Your task to perform on an android device: turn smart compose on in the gmail app Image 0: 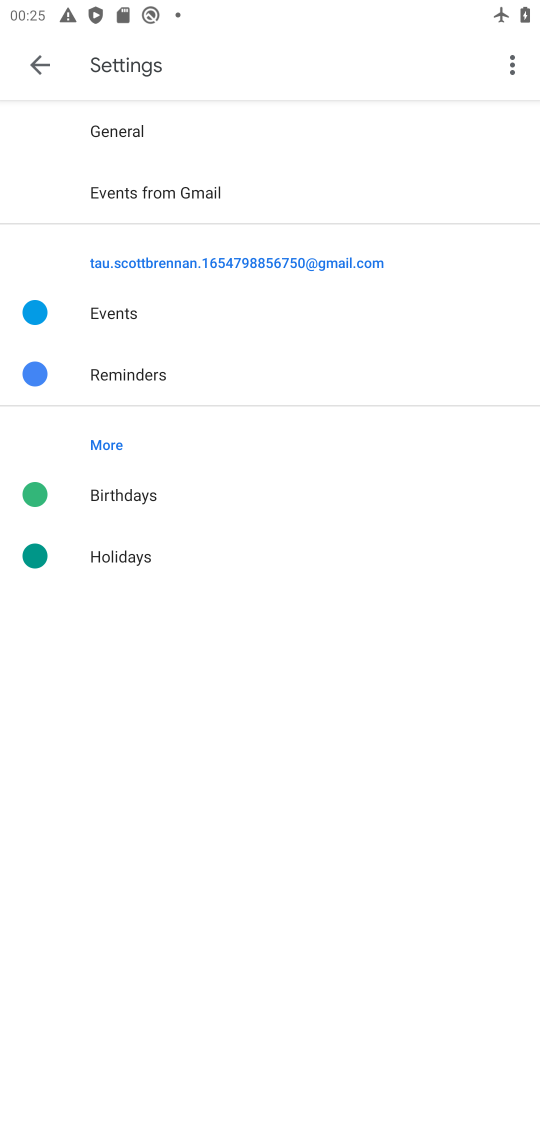
Step 0: press home button
Your task to perform on an android device: turn smart compose on in the gmail app Image 1: 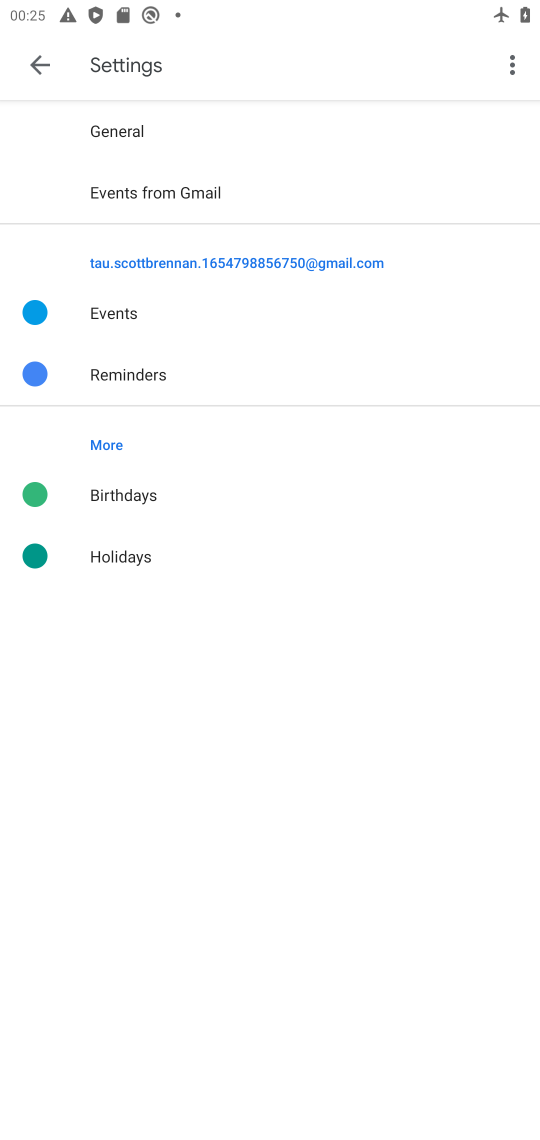
Step 1: press home button
Your task to perform on an android device: turn smart compose on in the gmail app Image 2: 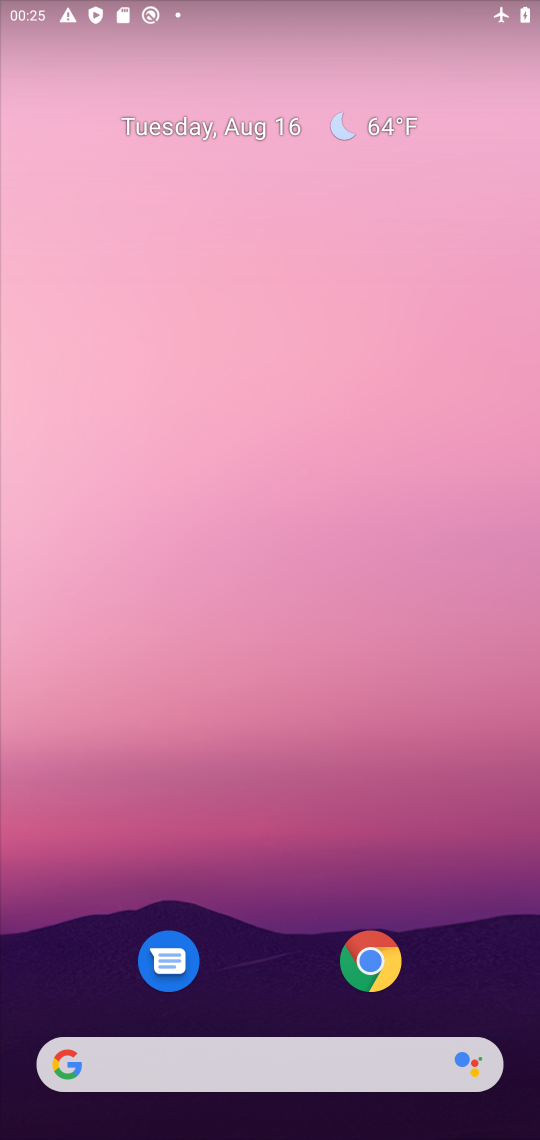
Step 2: drag from (296, 995) to (273, 274)
Your task to perform on an android device: turn smart compose on in the gmail app Image 3: 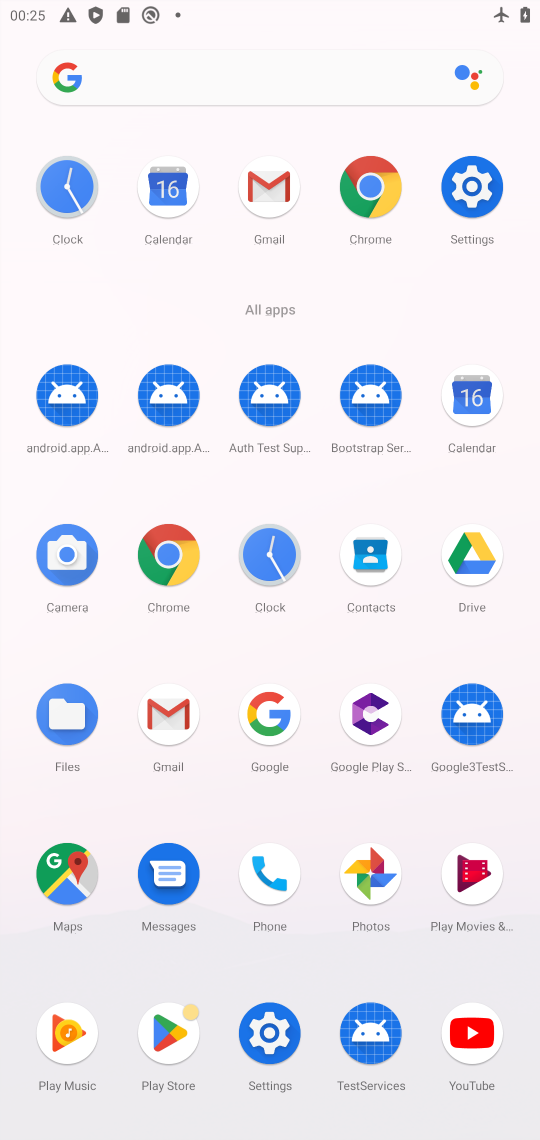
Step 3: click (160, 713)
Your task to perform on an android device: turn smart compose on in the gmail app Image 4: 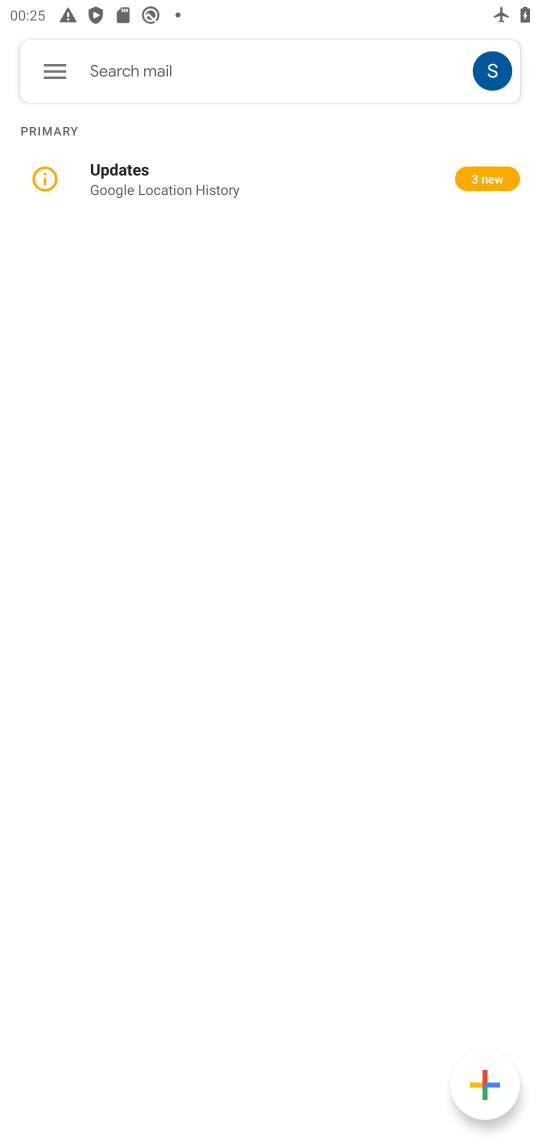
Step 4: click (51, 62)
Your task to perform on an android device: turn smart compose on in the gmail app Image 5: 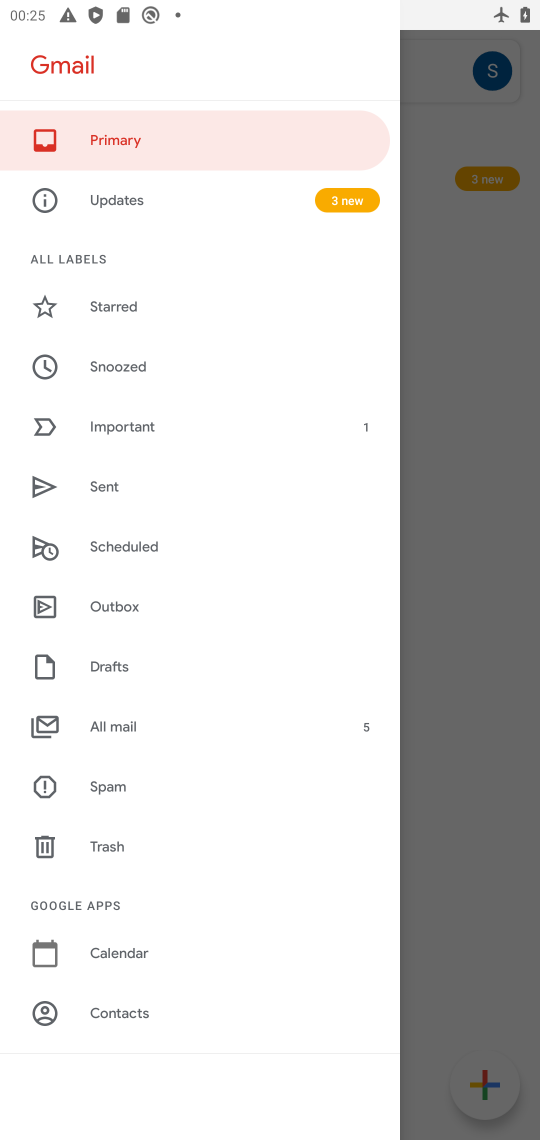
Step 5: drag from (186, 996) to (184, 787)
Your task to perform on an android device: turn smart compose on in the gmail app Image 6: 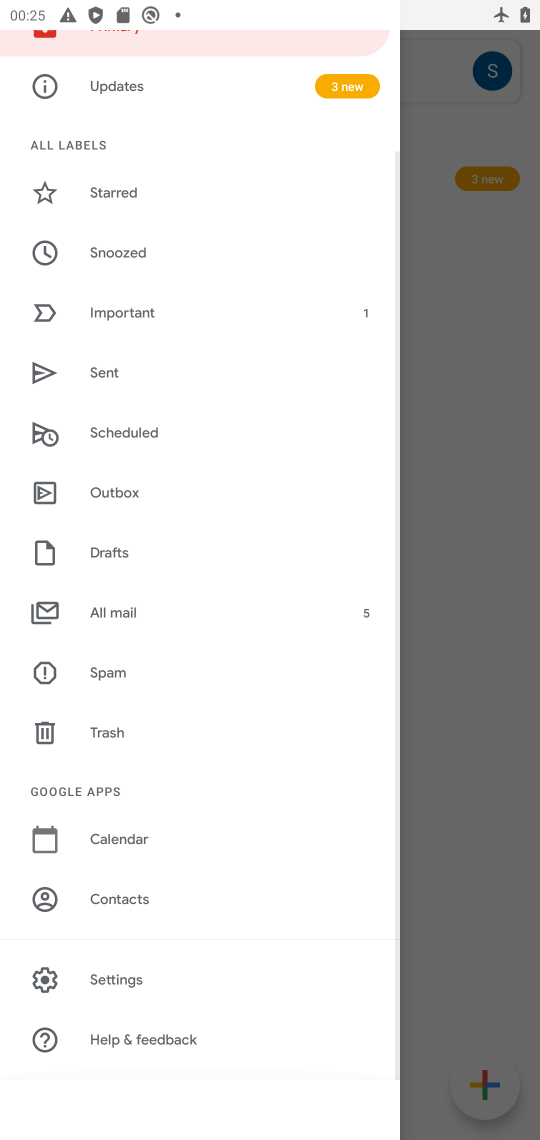
Step 6: click (184, 749)
Your task to perform on an android device: turn smart compose on in the gmail app Image 7: 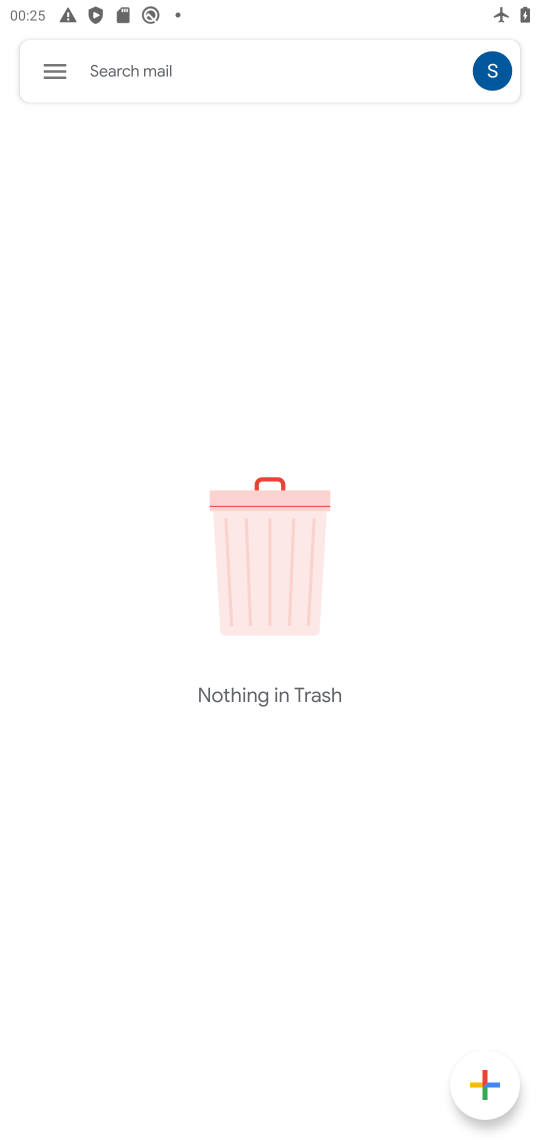
Step 7: press back button
Your task to perform on an android device: turn smart compose on in the gmail app Image 8: 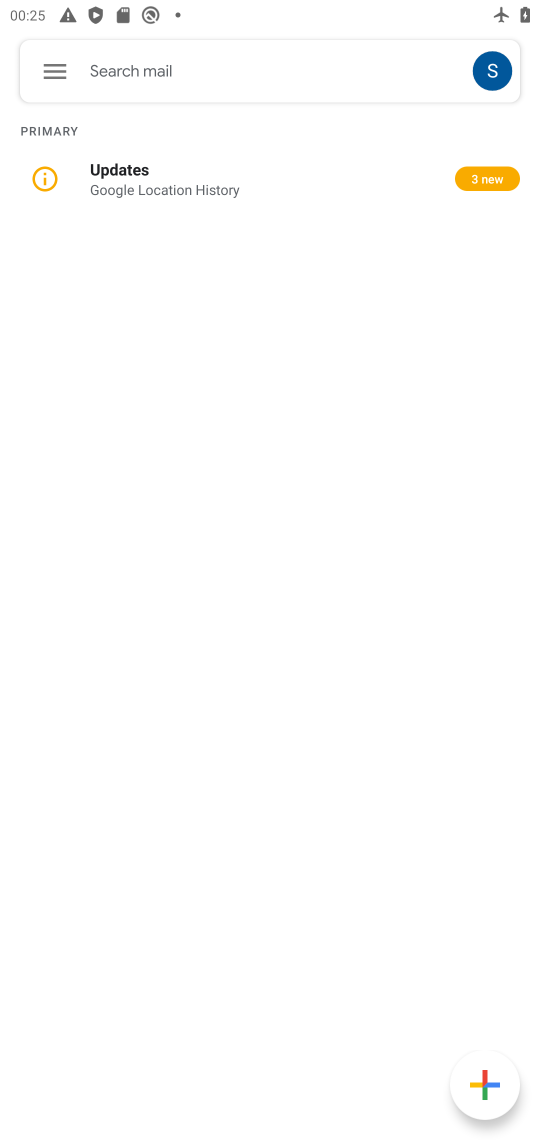
Step 8: click (39, 74)
Your task to perform on an android device: turn smart compose on in the gmail app Image 9: 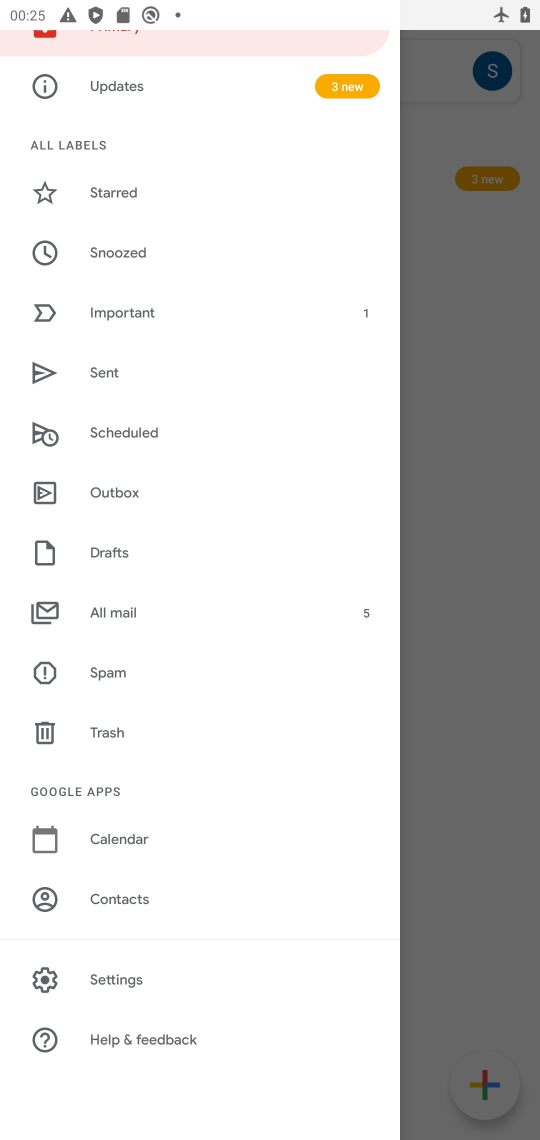
Step 9: click (138, 977)
Your task to perform on an android device: turn smart compose on in the gmail app Image 10: 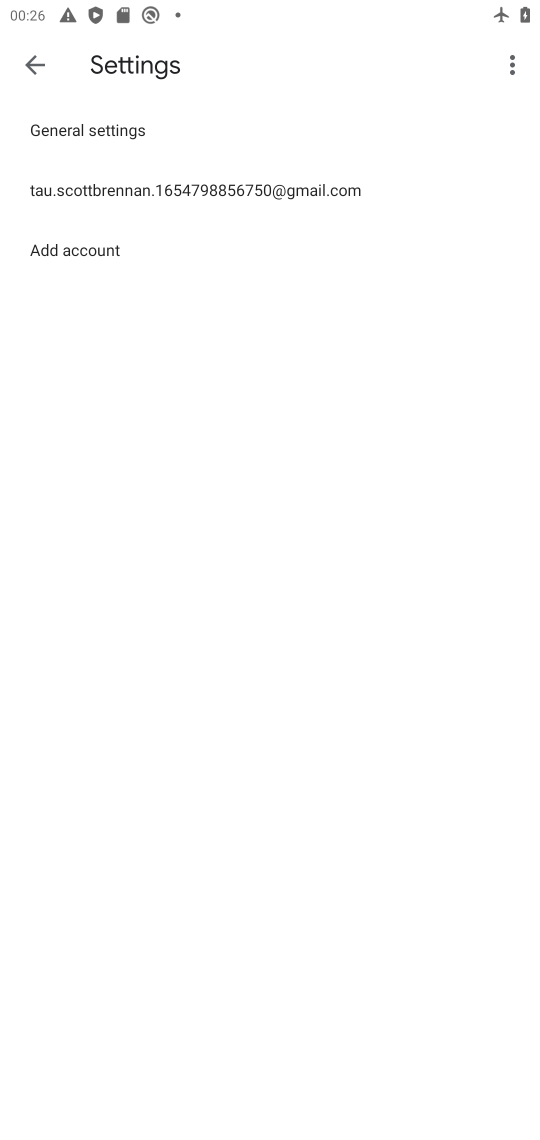
Step 10: click (176, 195)
Your task to perform on an android device: turn smart compose on in the gmail app Image 11: 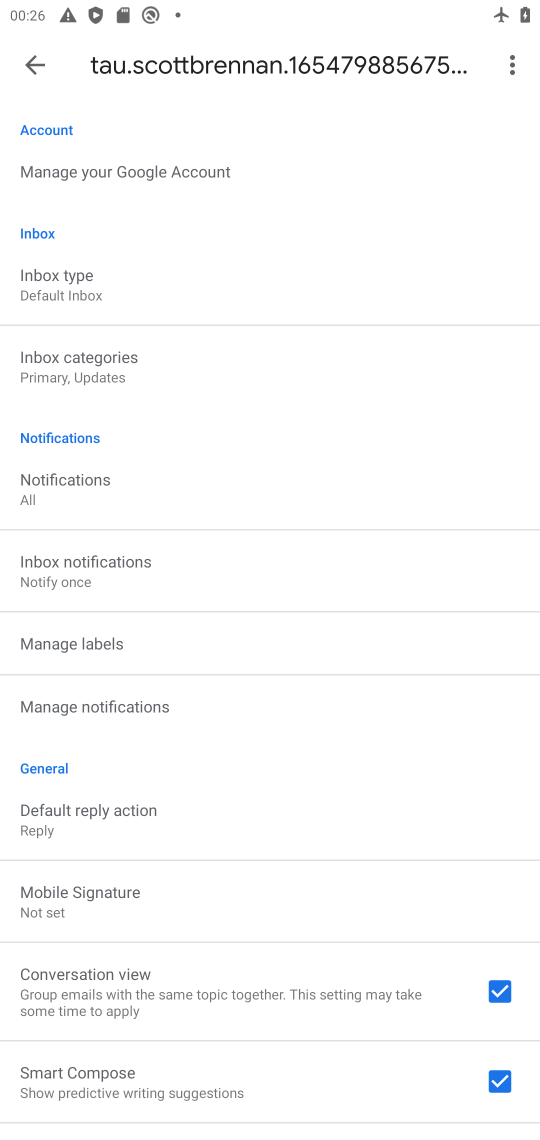
Step 11: click (144, 1090)
Your task to perform on an android device: turn smart compose on in the gmail app Image 12: 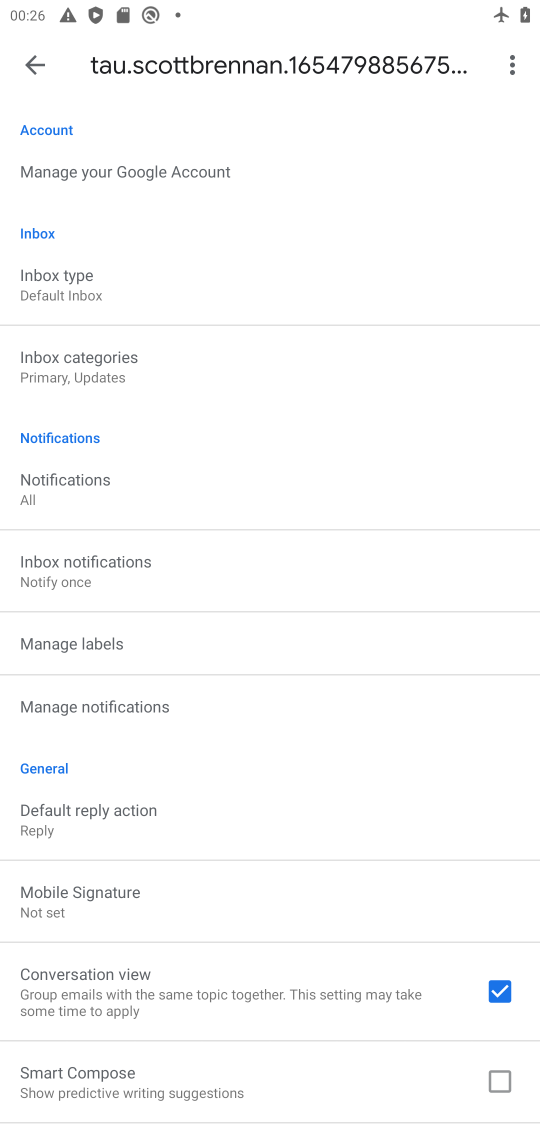
Step 12: click (66, 1079)
Your task to perform on an android device: turn smart compose on in the gmail app Image 13: 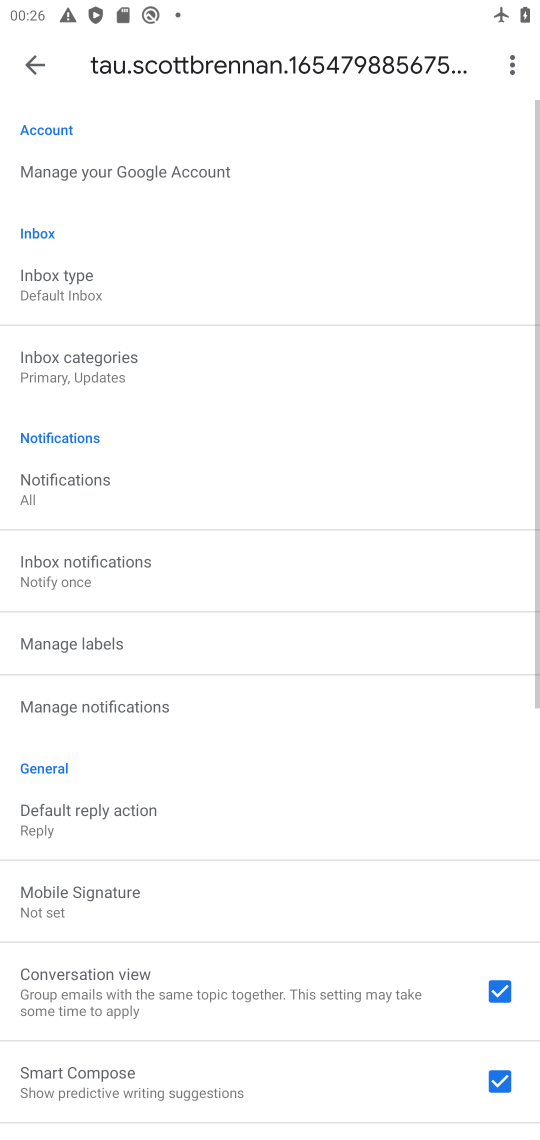
Step 13: click (66, 1079)
Your task to perform on an android device: turn smart compose on in the gmail app Image 14: 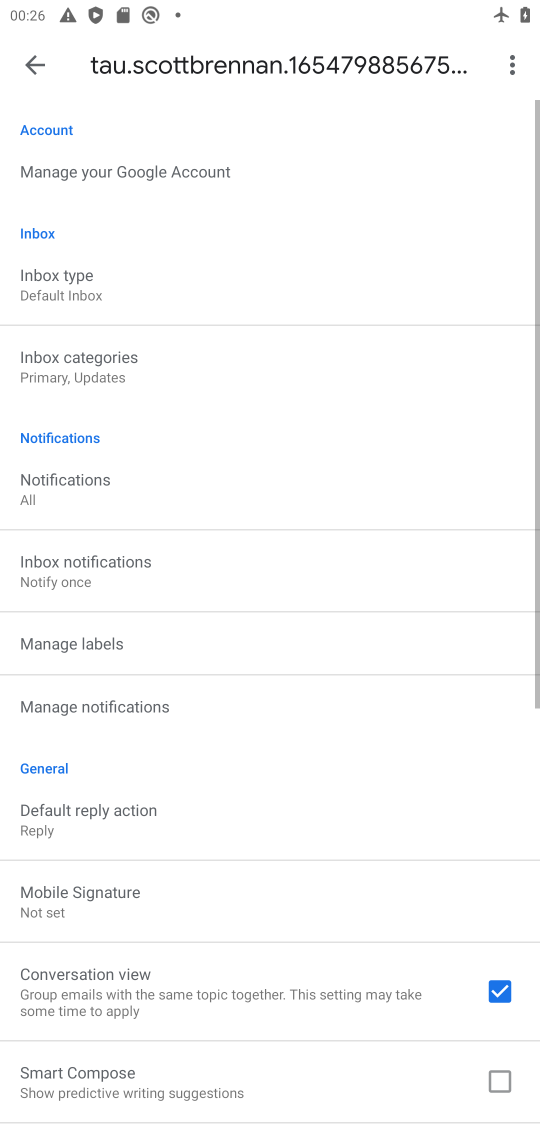
Step 14: click (66, 1079)
Your task to perform on an android device: turn smart compose on in the gmail app Image 15: 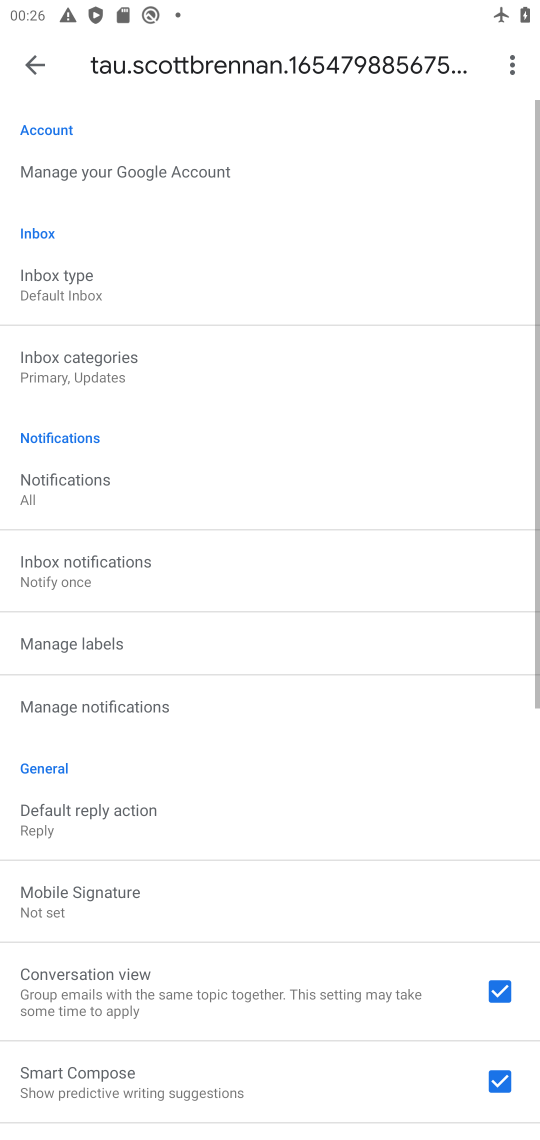
Step 15: task complete